Your task to perform on an android device: turn off data saver in the chrome app Image 0: 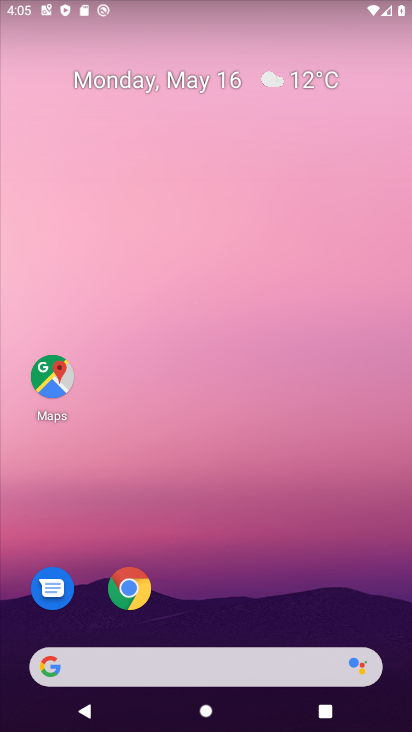
Step 0: click (121, 574)
Your task to perform on an android device: turn off data saver in the chrome app Image 1: 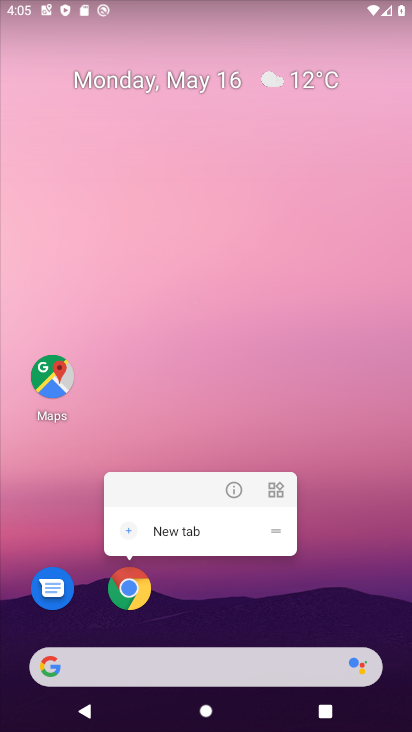
Step 1: click (138, 586)
Your task to perform on an android device: turn off data saver in the chrome app Image 2: 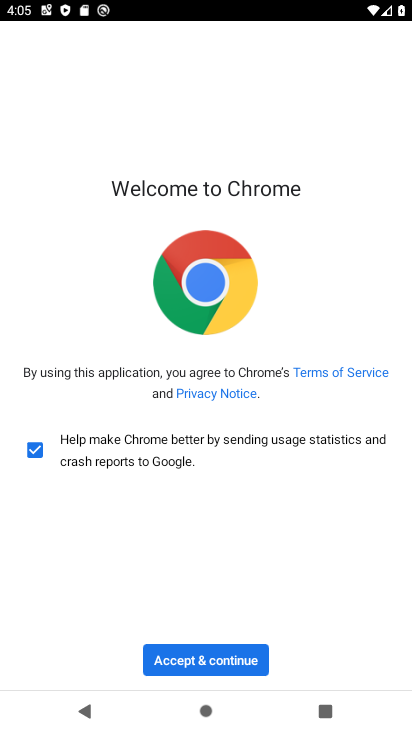
Step 2: click (196, 668)
Your task to perform on an android device: turn off data saver in the chrome app Image 3: 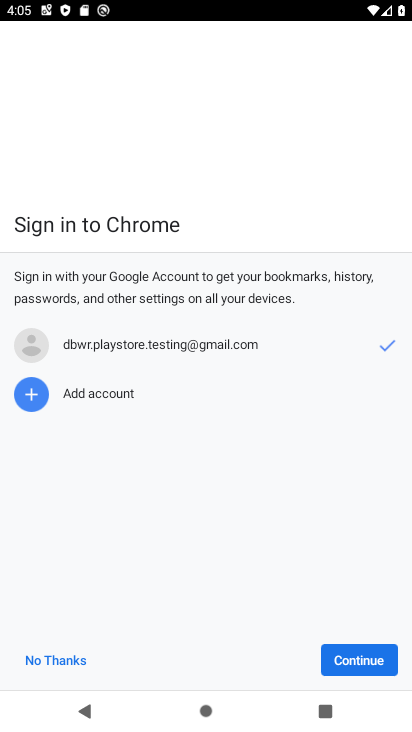
Step 3: click (352, 654)
Your task to perform on an android device: turn off data saver in the chrome app Image 4: 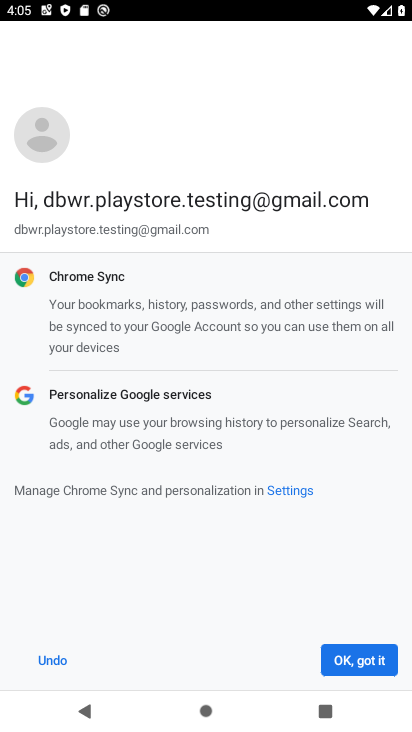
Step 4: click (354, 653)
Your task to perform on an android device: turn off data saver in the chrome app Image 5: 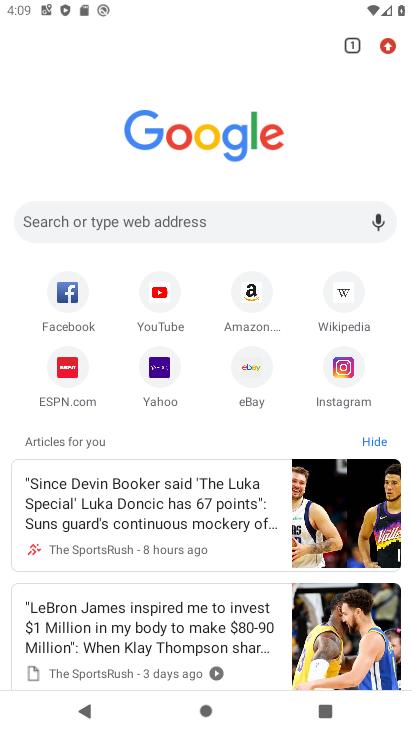
Step 5: drag from (380, 45) to (215, 428)
Your task to perform on an android device: turn off data saver in the chrome app Image 6: 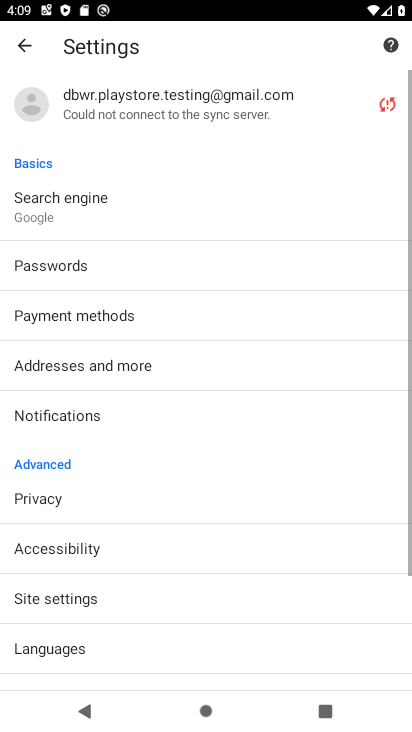
Step 6: drag from (219, 620) to (295, 213)
Your task to perform on an android device: turn off data saver in the chrome app Image 7: 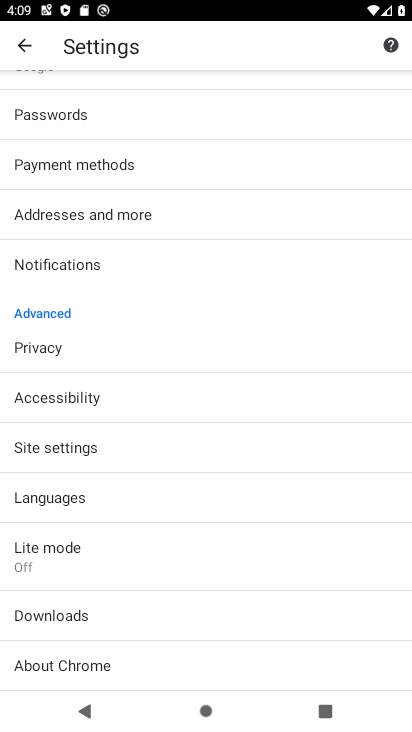
Step 7: click (113, 551)
Your task to perform on an android device: turn off data saver in the chrome app Image 8: 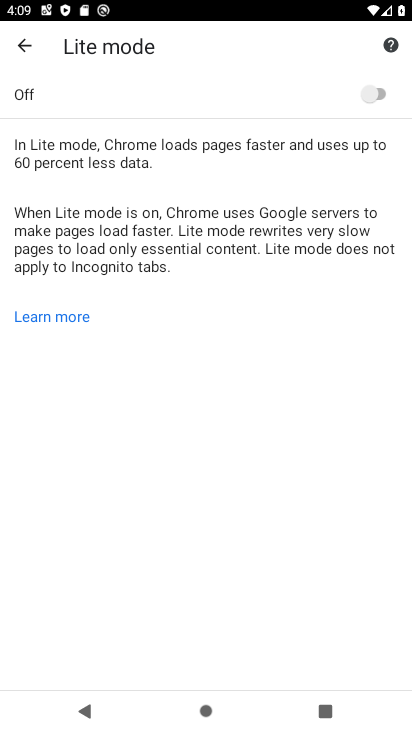
Step 8: task complete